Your task to perform on an android device: turn off javascript in the chrome app Image 0: 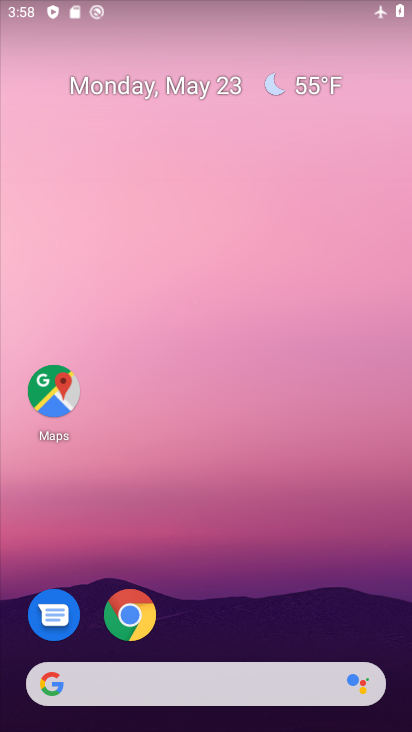
Step 0: drag from (378, 637) to (376, 196)
Your task to perform on an android device: turn off javascript in the chrome app Image 1: 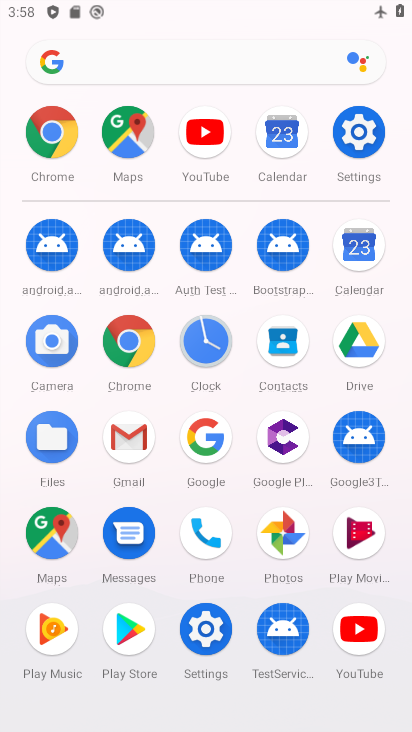
Step 1: click (125, 352)
Your task to perform on an android device: turn off javascript in the chrome app Image 2: 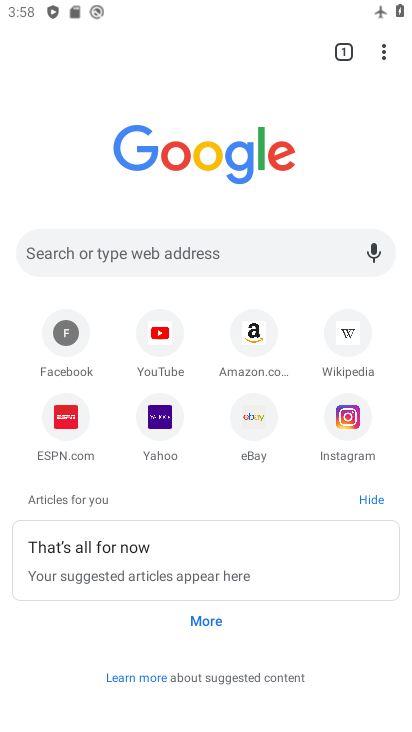
Step 2: click (383, 56)
Your task to perform on an android device: turn off javascript in the chrome app Image 3: 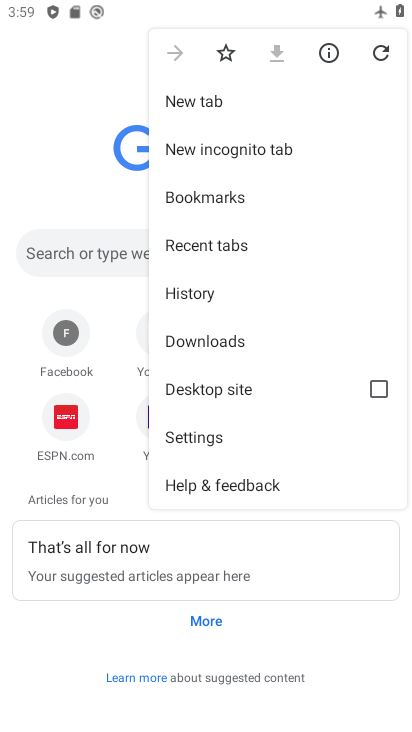
Step 3: click (261, 445)
Your task to perform on an android device: turn off javascript in the chrome app Image 4: 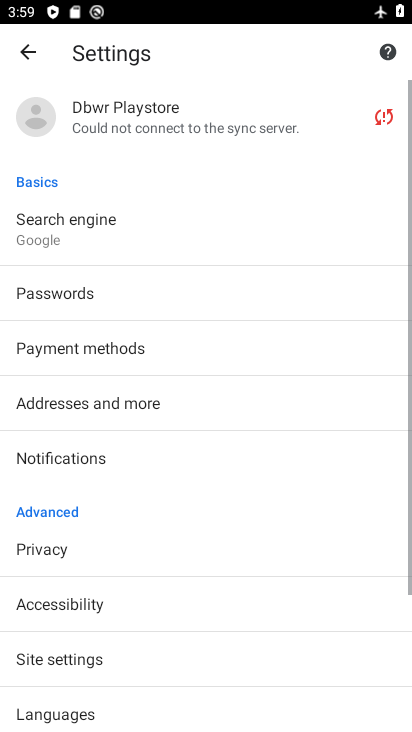
Step 4: drag from (274, 495) to (282, 429)
Your task to perform on an android device: turn off javascript in the chrome app Image 5: 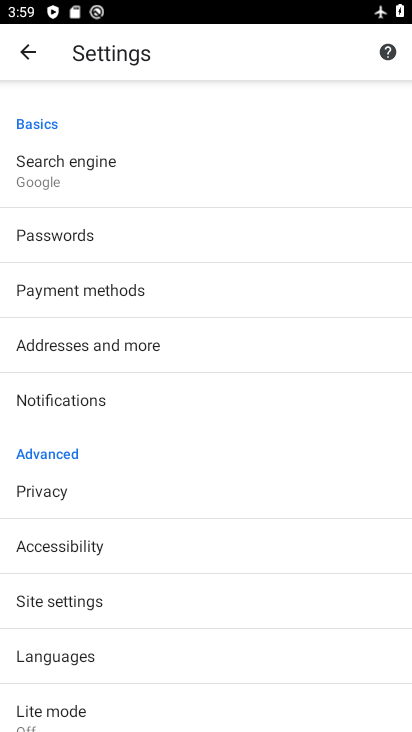
Step 5: drag from (288, 536) to (290, 470)
Your task to perform on an android device: turn off javascript in the chrome app Image 6: 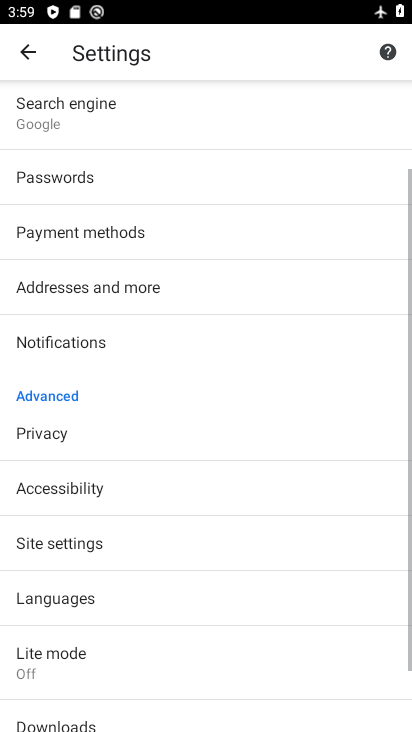
Step 6: drag from (302, 588) to (303, 534)
Your task to perform on an android device: turn off javascript in the chrome app Image 7: 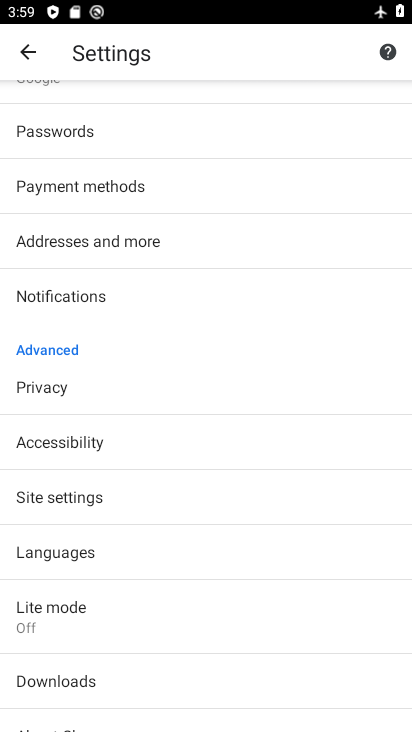
Step 7: drag from (306, 613) to (308, 536)
Your task to perform on an android device: turn off javascript in the chrome app Image 8: 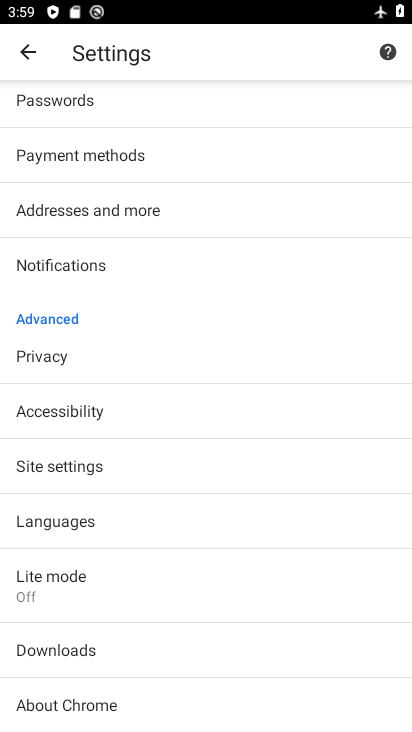
Step 8: drag from (297, 624) to (299, 525)
Your task to perform on an android device: turn off javascript in the chrome app Image 9: 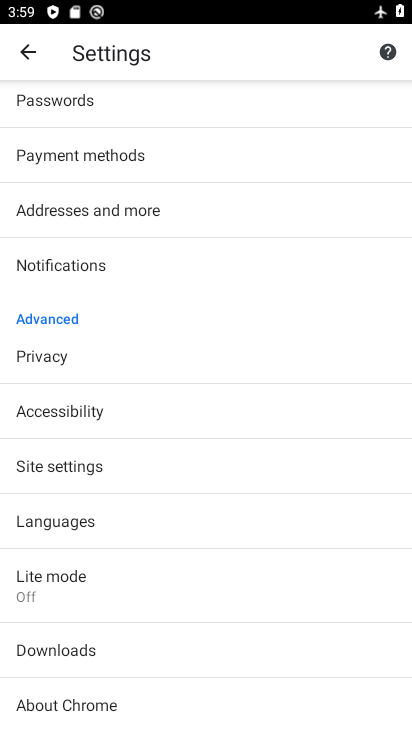
Step 9: drag from (297, 386) to (297, 456)
Your task to perform on an android device: turn off javascript in the chrome app Image 10: 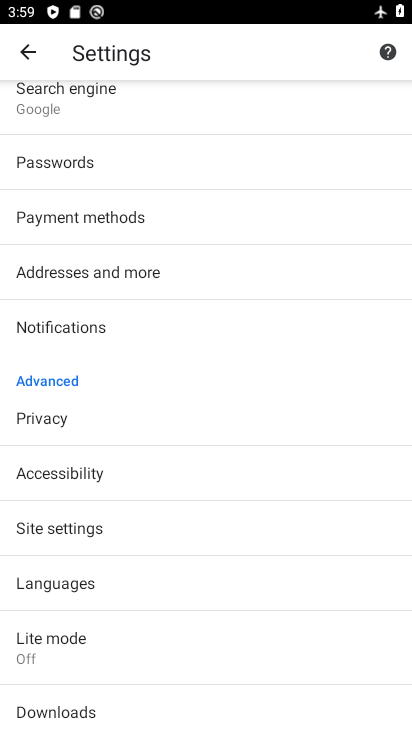
Step 10: drag from (317, 327) to (321, 444)
Your task to perform on an android device: turn off javascript in the chrome app Image 11: 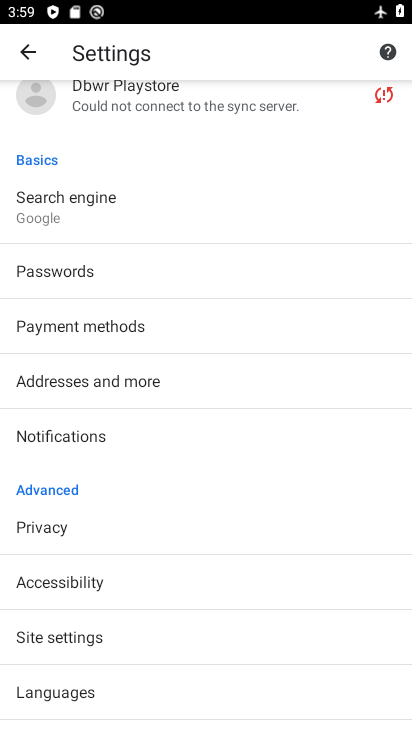
Step 11: drag from (317, 259) to (318, 388)
Your task to perform on an android device: turn off javascript in the chrome app Image 12: 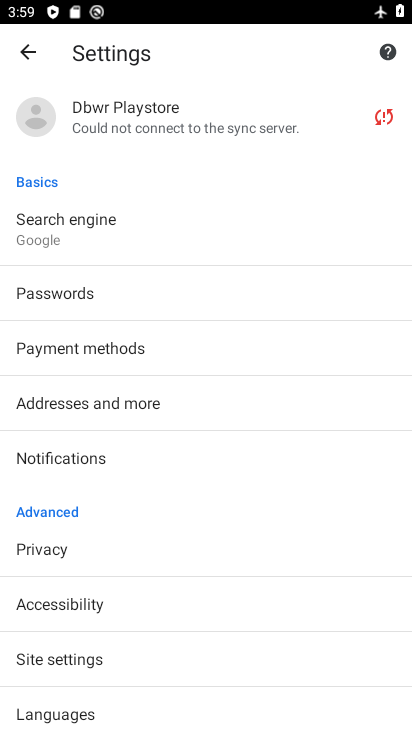
Step 12: drag from (322, 508) to (322, 401)
Your task to perform on an android device: turn off javascript in the chrome app Image 13: 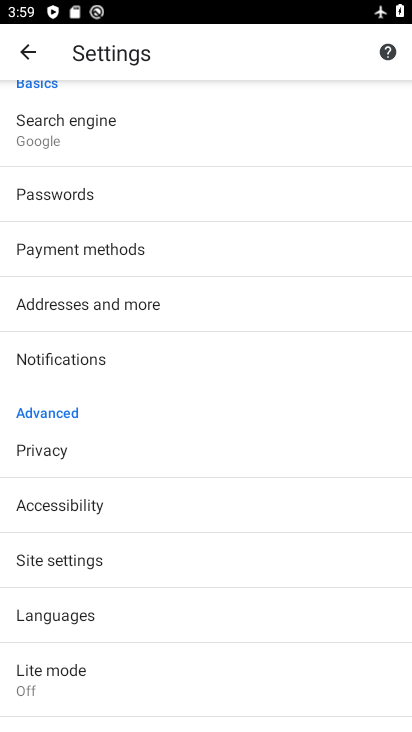
Step 13: drag from (287, 559) to (288, 420)
Your task to perform on an android device: turn off javascript in the chrome app Image 14: 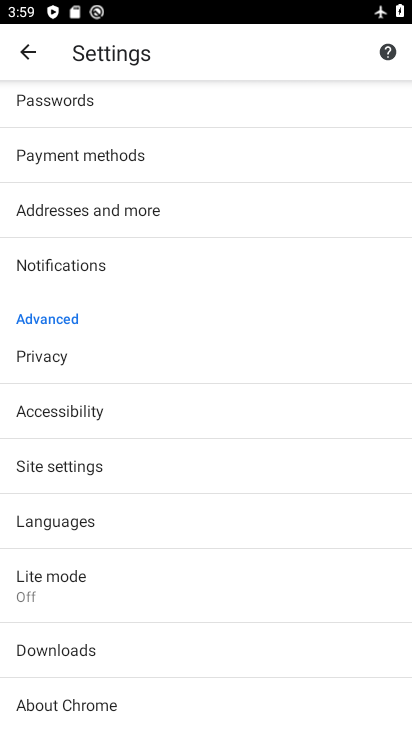
Step 14: click (204, 457)
Your task to perform on an android device: turn off javascript in the chrome app Image 15: 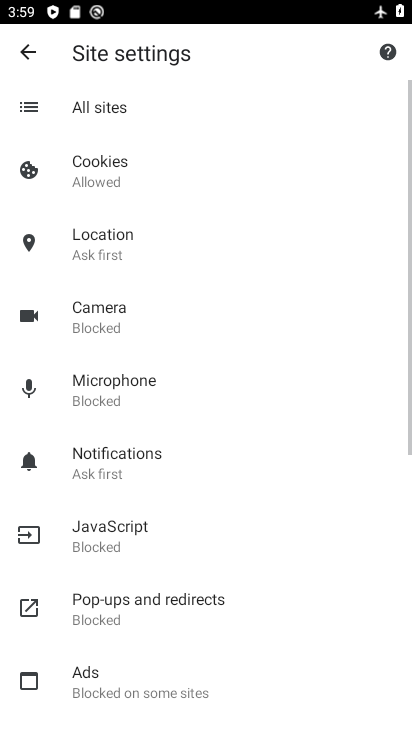
Step 15: drag from (330, 599) to (328, 501)
Your task to perform on an android device: turn off javascript in the chrome app Image 16: 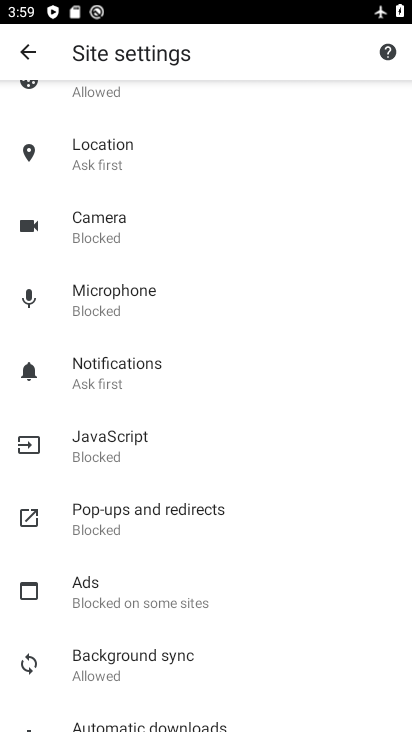
Step 16: drag from (344, 639) to (351, 546)
Your task to perform on an android device: turn off javascript in the chrome app Image 17: 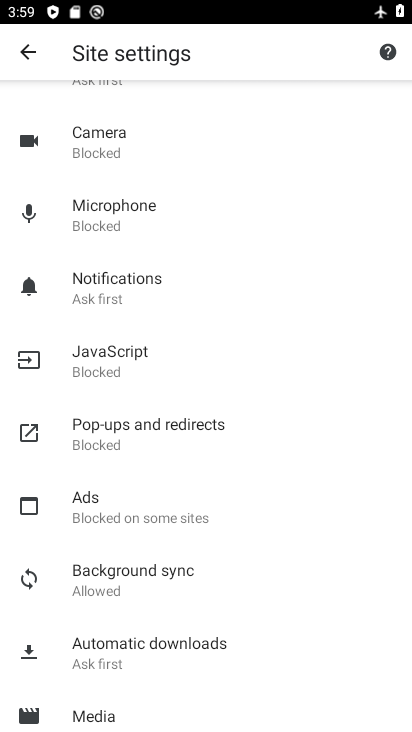
Step 17: drag from (338, 668) to (351, 564)
Your task to perform on an android device: turn off javascript in the chrome app Image 18: 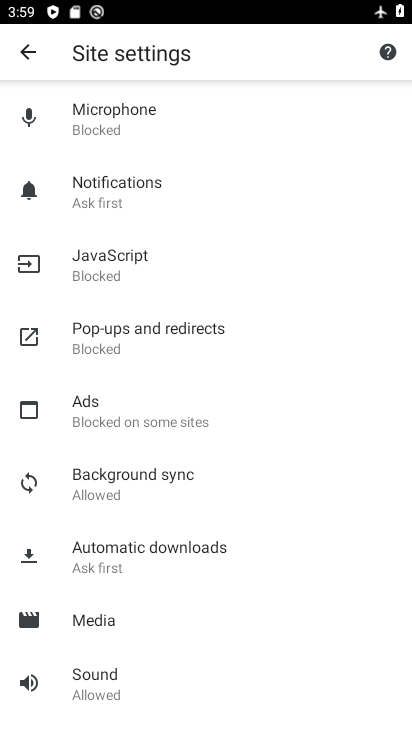
Step 18: drag from (330, 655) to (336, 571)
Your task to perform on an android device: turn off javascript in the chrome app Image 19: 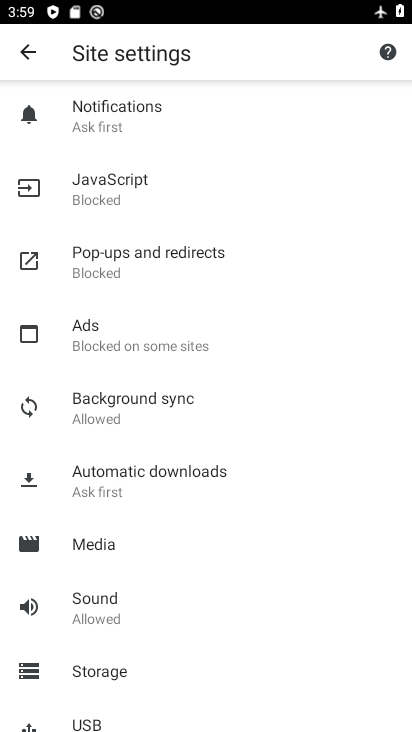
Step 19: drag from (343, 662) to (343, 526)
Your task to perform on an android device: turn off javascript in the chrome app Image 20: 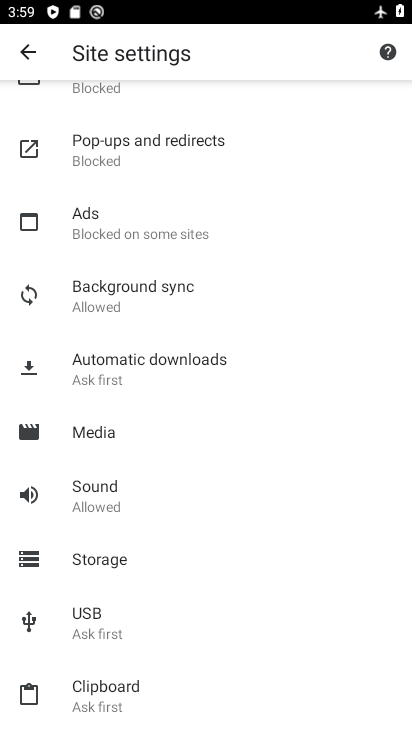
Step 20: drag from (338, 649) to (345, 539)
Your task to perform on an android device: turn off javascript in the chrome app Image 21: 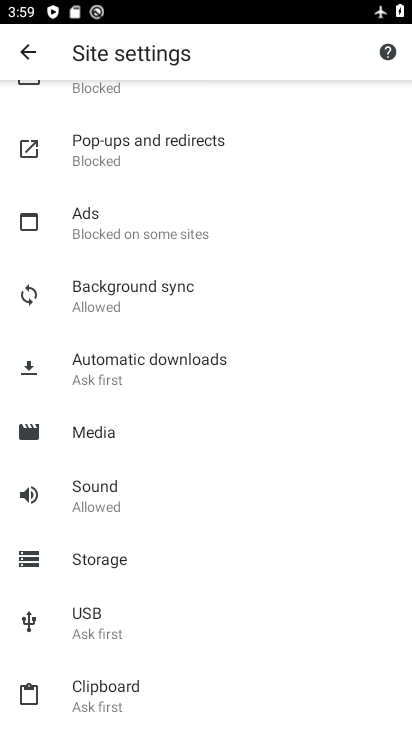
Step 21: drag from (345, 449) to (349, 568)
Your task to perform on an android device: turn off javascript in the chrome app Image 22: 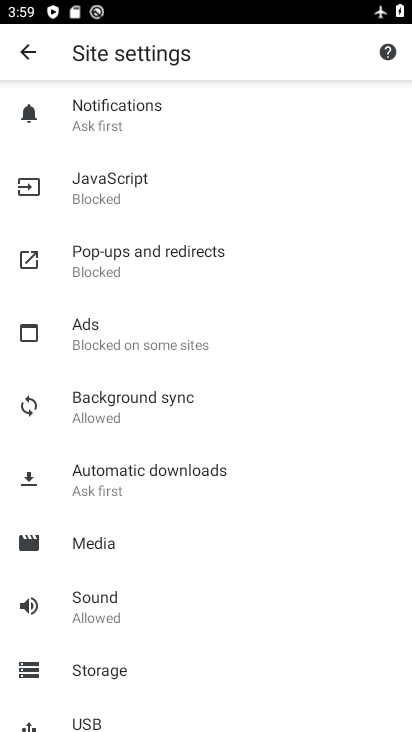
Step 22: drag from (342, 420) to (343, 522)
Your task to perform on an android device: turn off javascript in the chrome app Image 23: 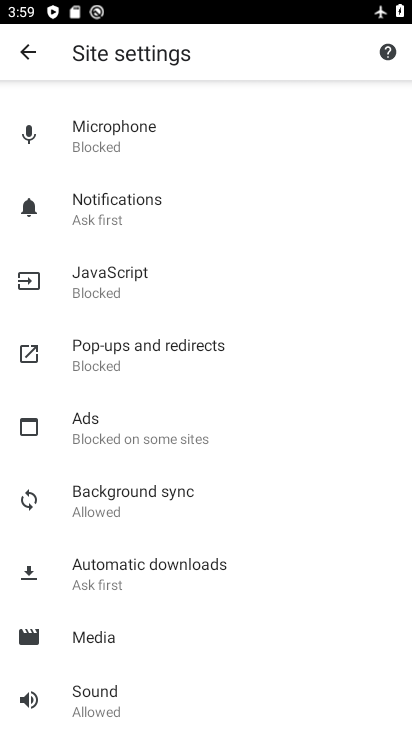
Step 23: drag from (323, 380) to (322, 470)
Your task to perform on an android device: turn off javascript in the chrome app Image 24: 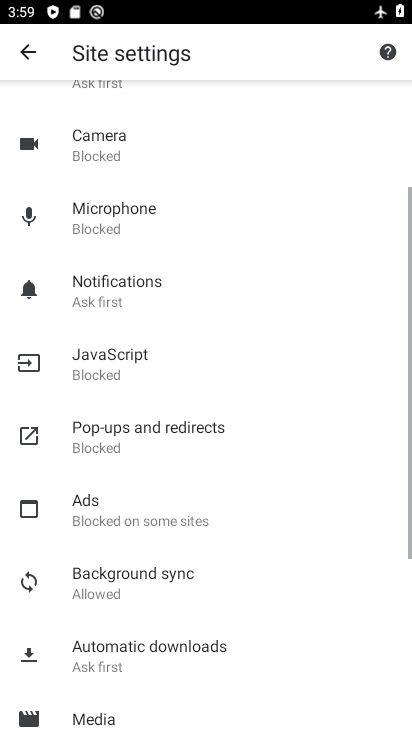
Step 24: drag from (332, 349) to (325, 468)
Your task to perform on an android device: turn off javascript in the chrome app Image 25: 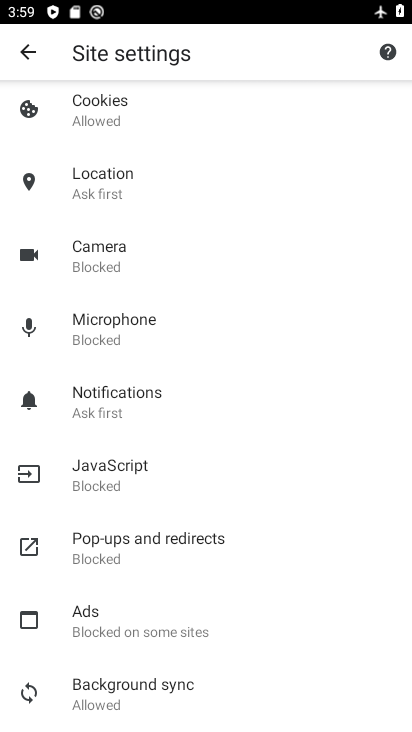
Step 25: click (152, 478)
Your task to perform on an android device: turn off javascript in the chrome app Image 26: 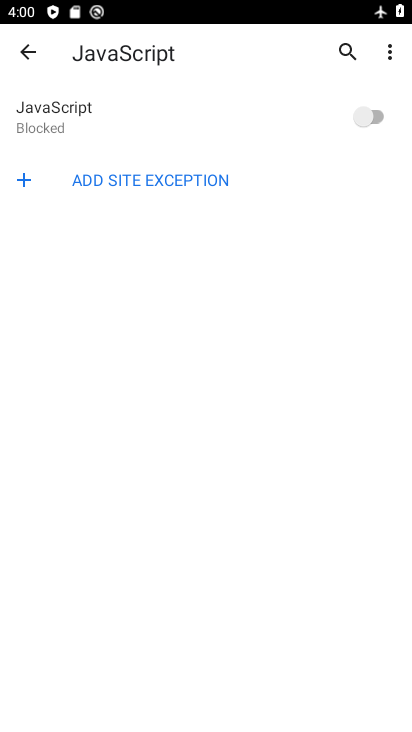
Step 26: task complete